Your task to perform on an android device: Go to accessibility settings Image 0: 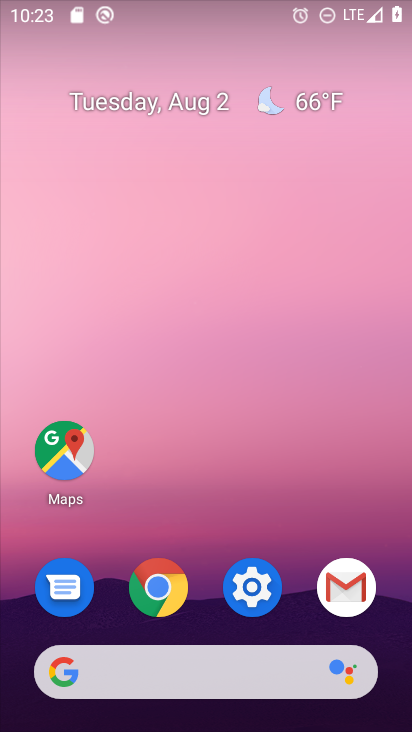
Step 0: press home button
Your task to perform on an android device: Go to accessibility settings Image 1: 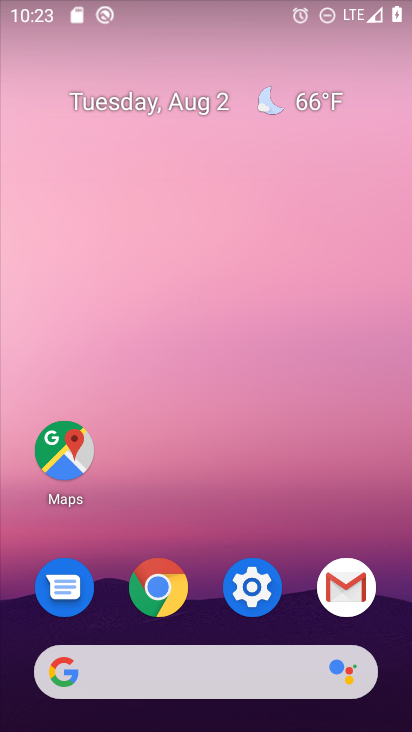
Step 1: click (258, 576)
Your task to perform on an android device: Go to accessibility settings Image 2: 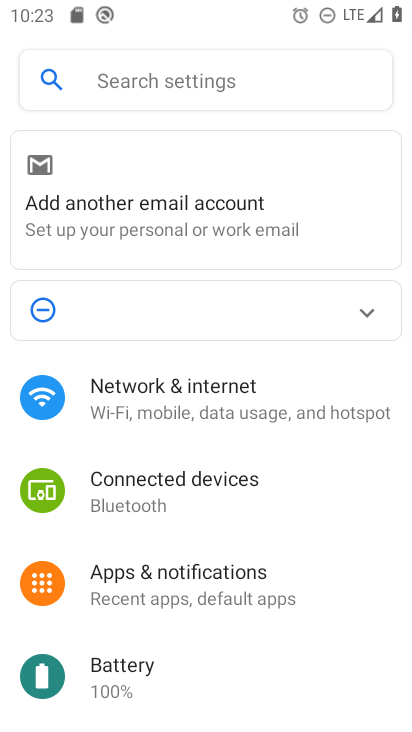
Step 2: click (137, 88)
Your task to perform on an android device: Go to accessibility settings Image 3: 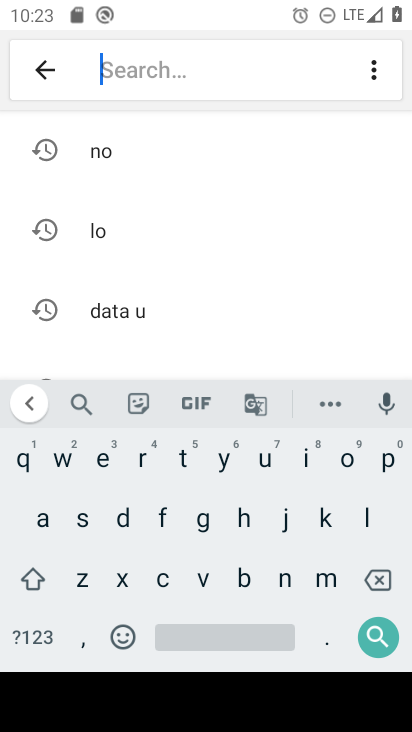
Step 3: click (34, 514)
Your task to perform on an android device: Go to accessibility settings Image 4: 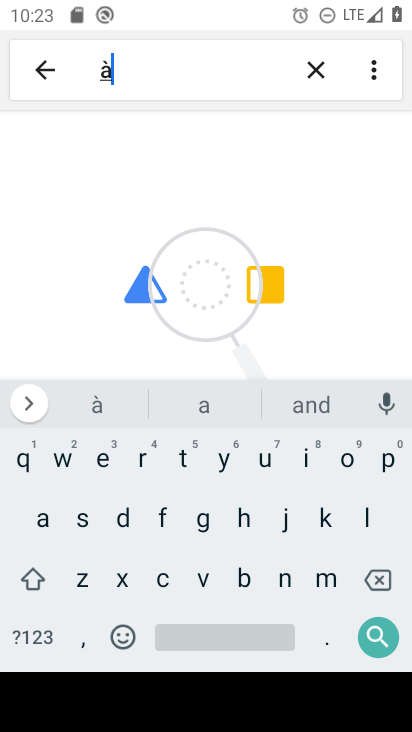
Step 4: click (306, 71)
Your task to perform on an android device: Go to accessibility settings Image 5: 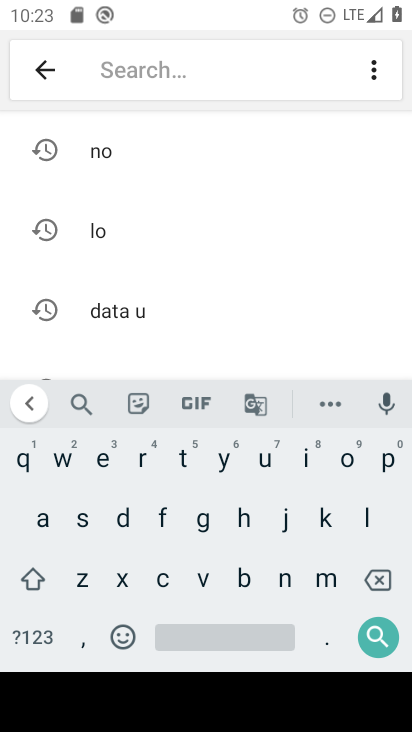
Step 5: click (48, 526)
Your task to perform on an android device: Go to accessibility settings Image 6: 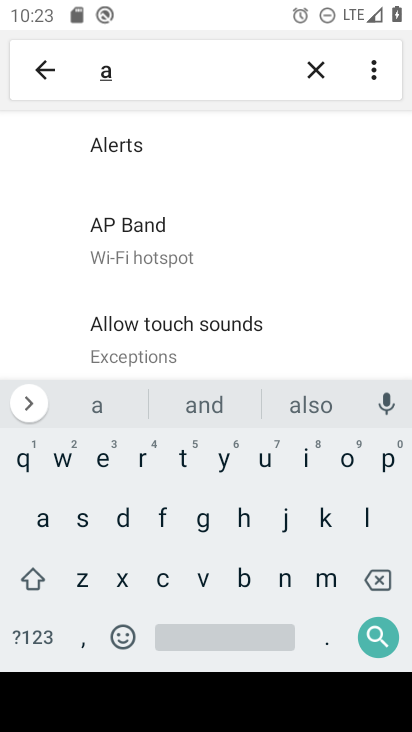
Step 6: click (160, 579)
Your task to perform on an android device: Go to accessibility settings Image 7: 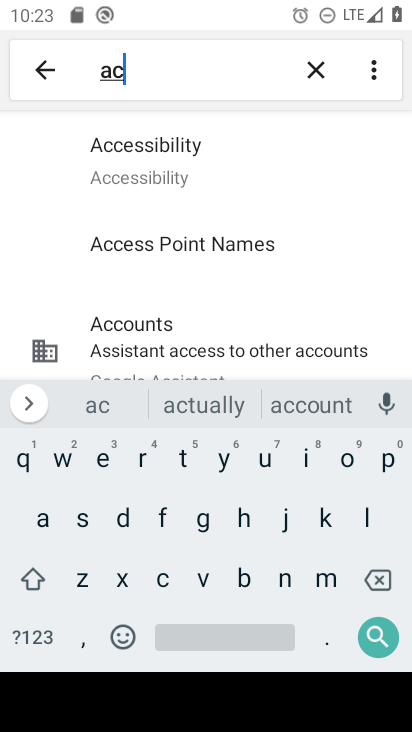
Step 7: click (185, 170)
Your task to perform on an android device: Go to accessibility settings Image 8: 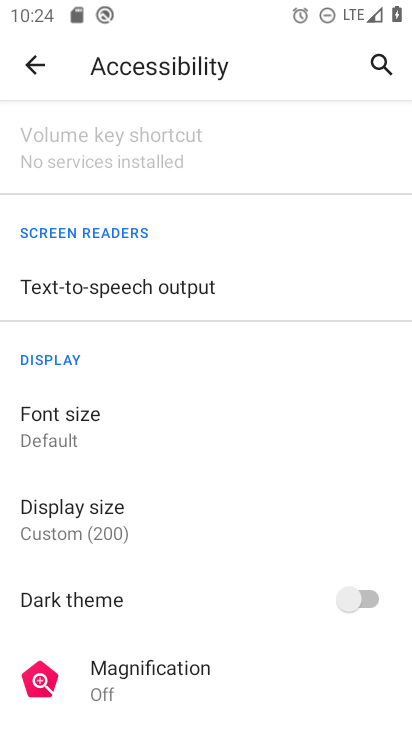
Step 8: task complete